Your task to perform on an android device: toggle location history Image 0: 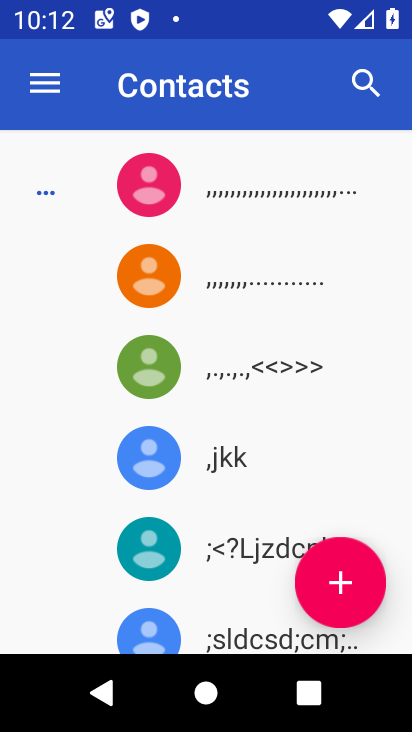
Step 0: press home button
Your task to perform on an android device: toggle location history Image 1: 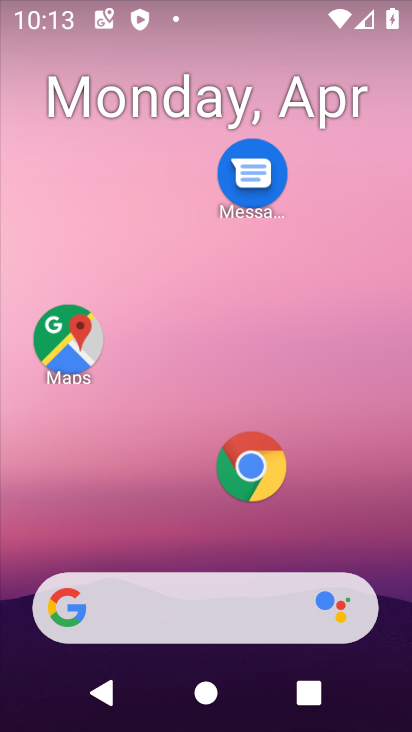
Step 1: drag from (173, 449) to (311, 10)
Your task to perform on an android device: toggle location history Image 2: 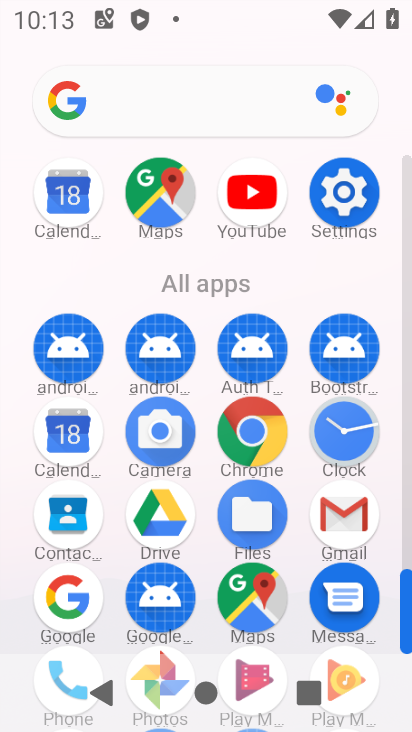
Step 2: click (343, 208)
Your task to perform on an android device: toggle location history Image 3: 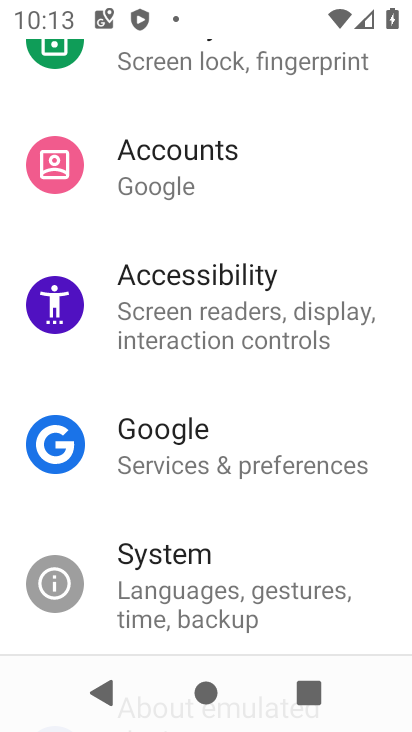
Step 3: drag from (258, 181) to (215, 632)
Your task to perform on an android device: toggle location history Image 4: 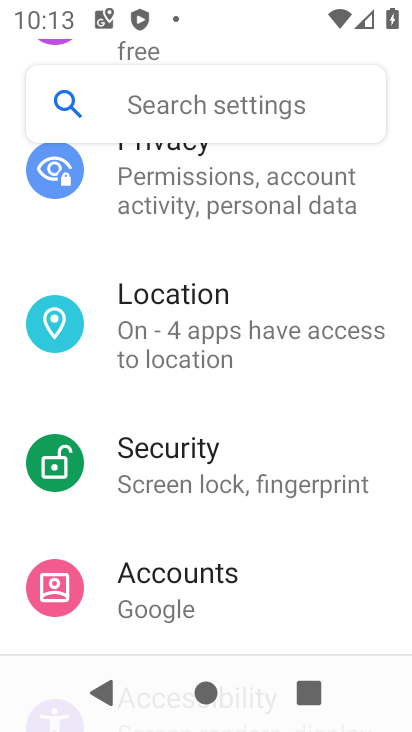
Step 4: click (201, 360)
Your task to perform on an android device: toggle location history Image 5: 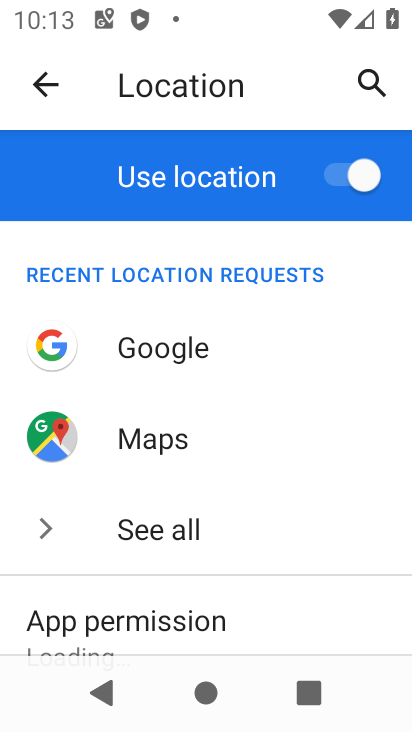
Step 5: drag from (207, 581) to (259, 225)
Your task to perform on an android device: toggle location history Image 6: 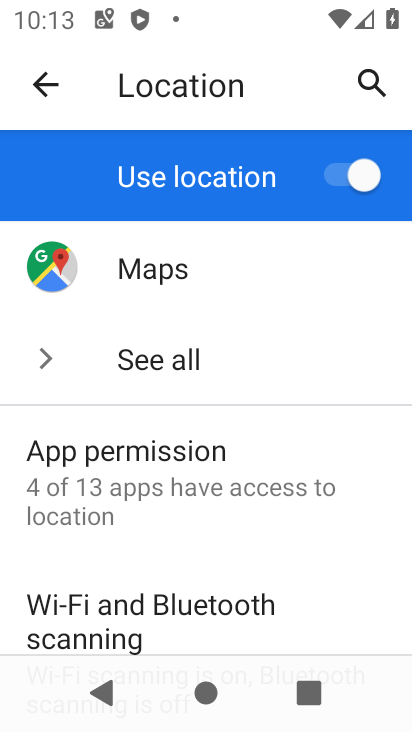
Step 6: drag from (211, 631) to (235, 293)
Your task to perform on an android device: toggle location history Image 7: 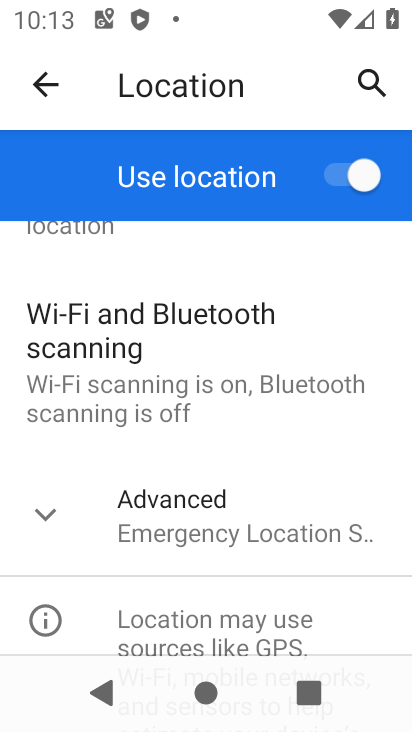
Step 7: click (194, 514)
Your task to perform on an android device: toggle location history Image 8: 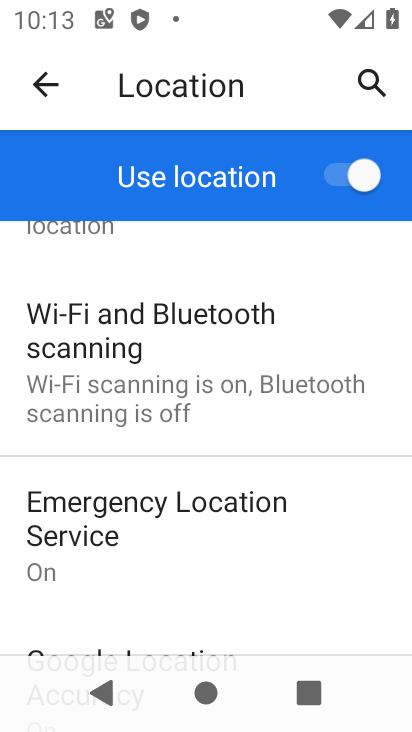
Step 8: drag from (194, 624) to (254, 248)
Your task to perform on an android device: toggle location history Image 9: 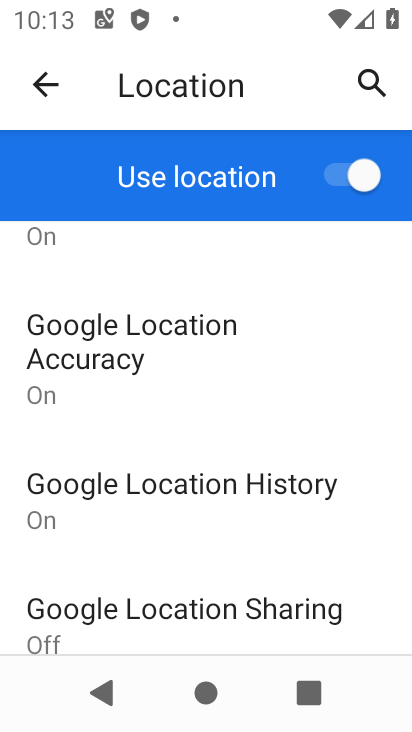
Step 9: click (211, 482)
Your task to perform on an android device: toggle location history Image 10: 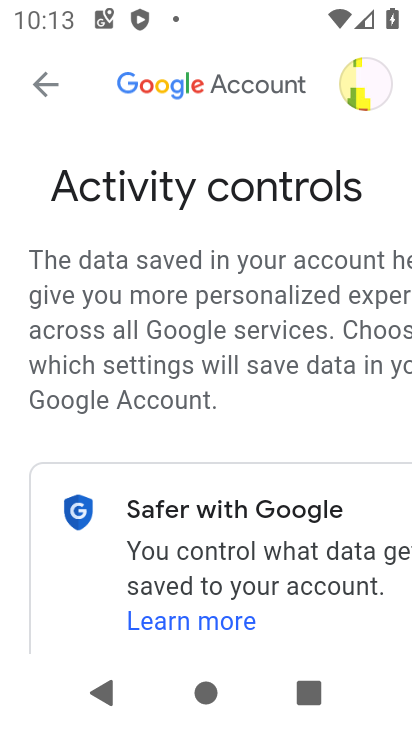
Step 10: task complete